Your task to perform on an android device: Search for vegetarian restaurants on Maps Image 0: 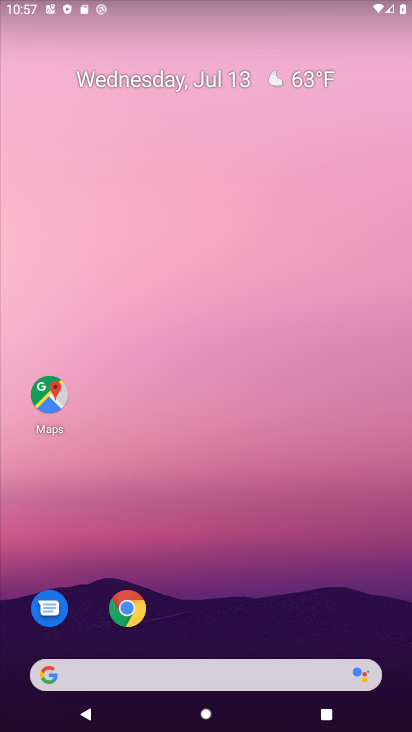
Step 0: press home button
Your task to perform on an android device: Search for vegetarian restaurants on Maps Image 1: 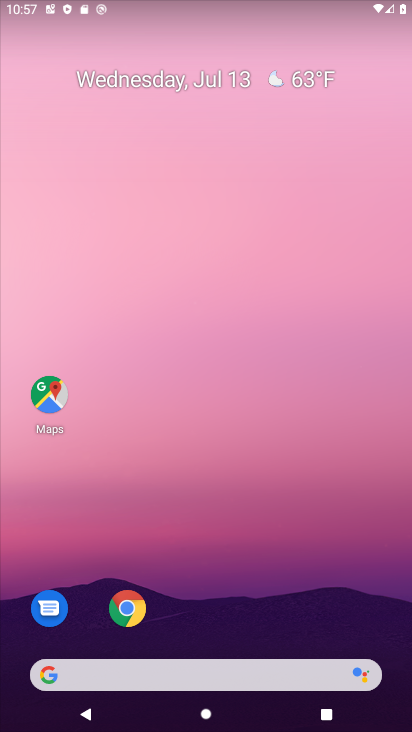
Step 1: click (35, 386)
Your task to perform on an android device: Search for vegetarian restaurants on Maps Image 2: 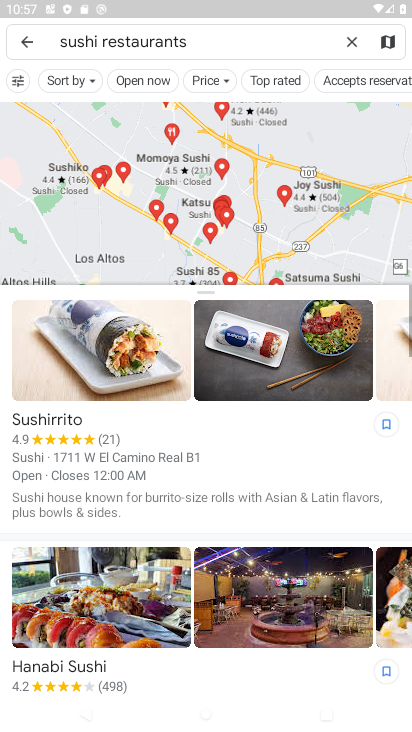
Step 2: click (345, 41)
Your task to perform on an android device: Search for vegetarian restaurants on Maps Image 3: 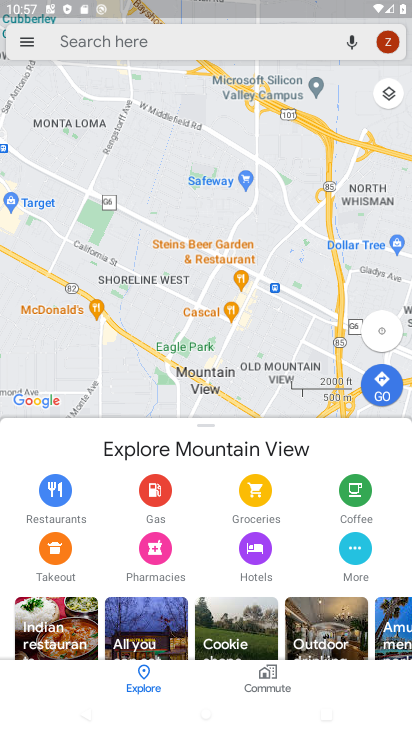
Step 3: type "vegetarian restaurants"
Your task to perform on an android device: Search for vegetarian restaurants on Maps Image 4: 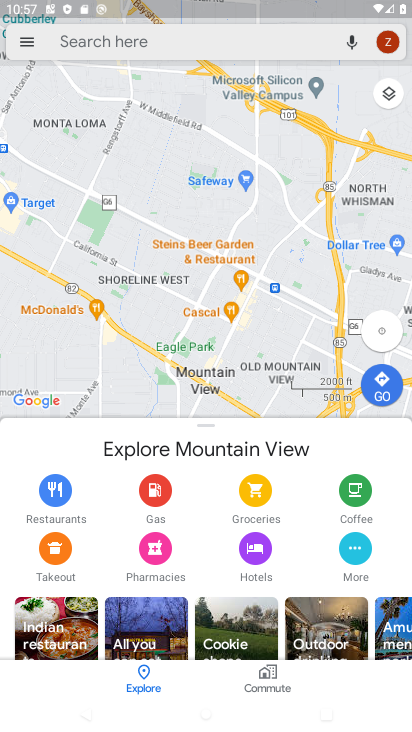
Step 4: click (144, 39)
Your task to perform on an android device: Search for vegetarian restaurants on Maps Image 5: 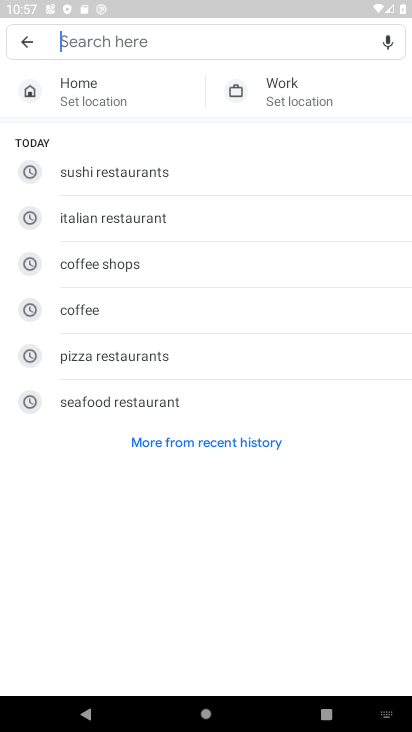
Step 5: click (108, 35)
Your task to perform on an android device: Search for vegetarian restaurants on Maps Image 6: 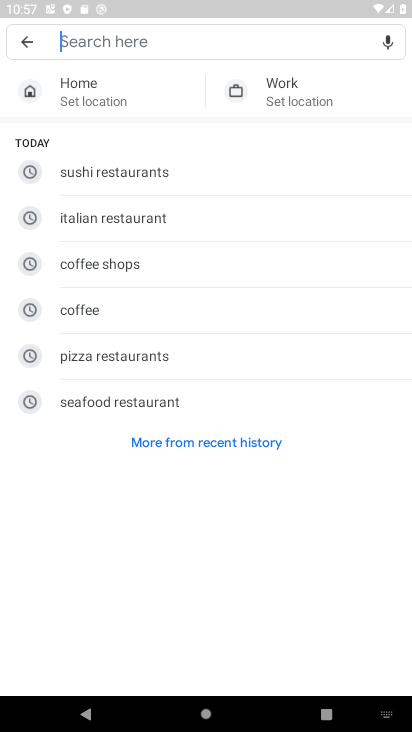
Step 6: type "vegetarian restaurants"
Your task to perform on an android device: Search for vegetarian restaurants on Maps Image 7: 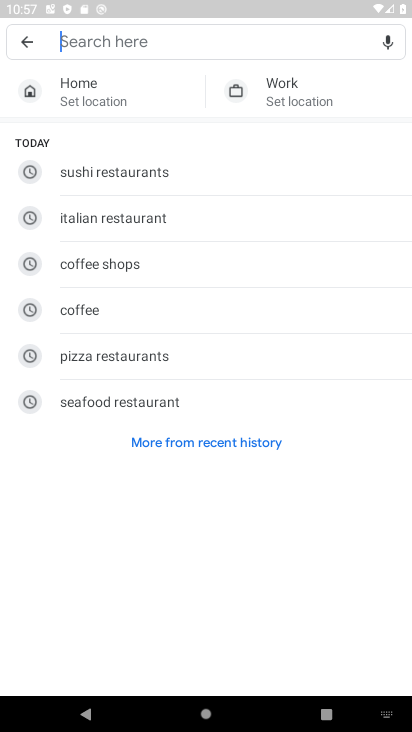
Step 7: click (106, 43)
Your task to perform on an android device: Search for vegetarian restaurants on Maps Image 8: 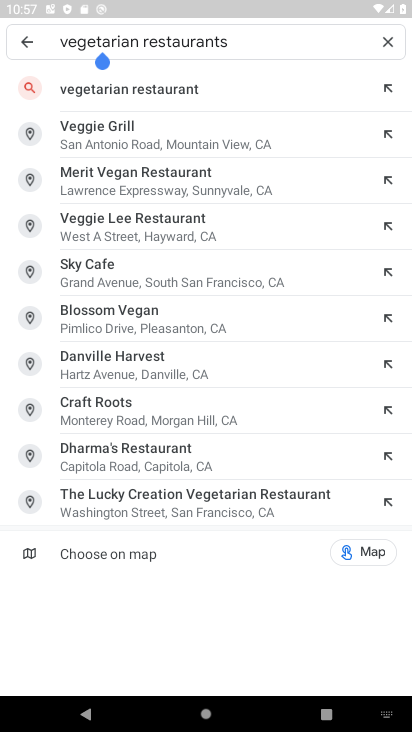
Step 8: click (117, 92)
Your task to perform on an android device: Search for vegetarian restaurants on Maps Image 9: 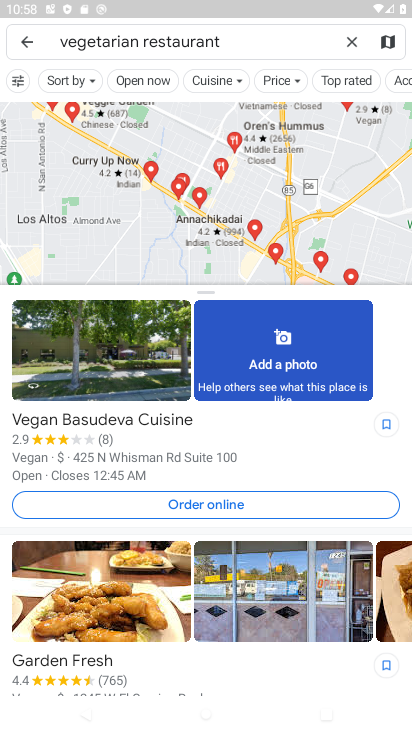
Step 9: task complete